Your task to perform on an android device: refresh tabs in the chrome app Image 0: 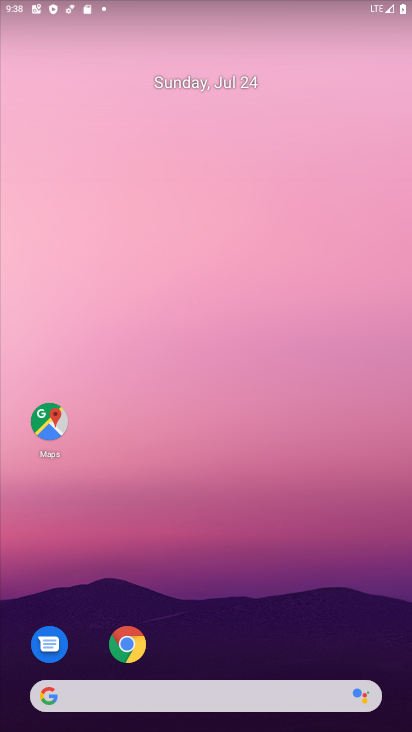
Step 0: click (127, 648)
Your task to perform on an android device: refresh tabs in the chrome app Image 1: 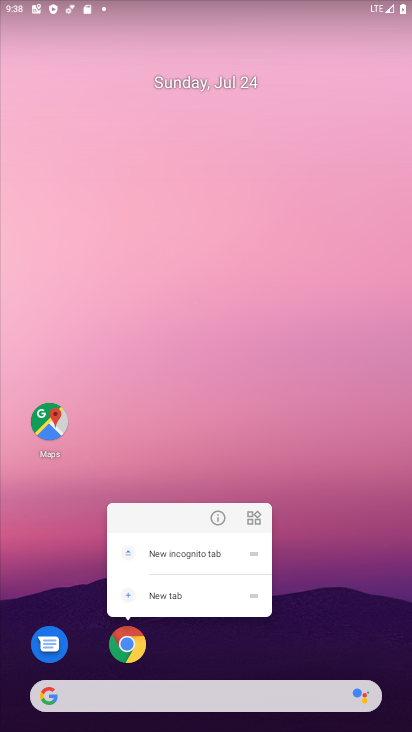
Step 1: click (129, 645)
Your task to perform on an android device: refresh tabs in the chrome app Image 2: 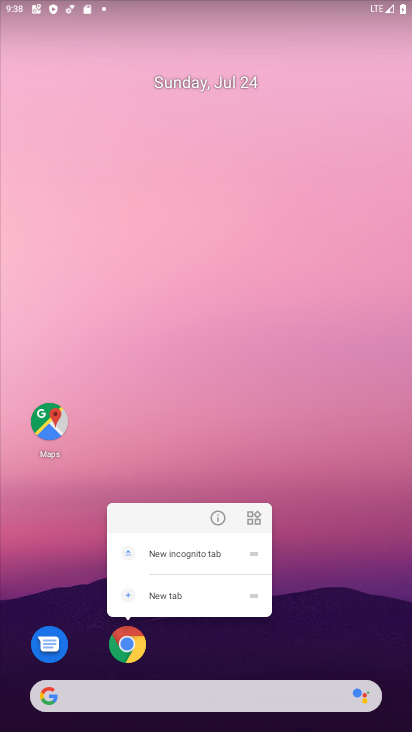
Step 2: click (129, 645)
Your task to perform on an android device: refresh tabs in the chrome app Image 3: 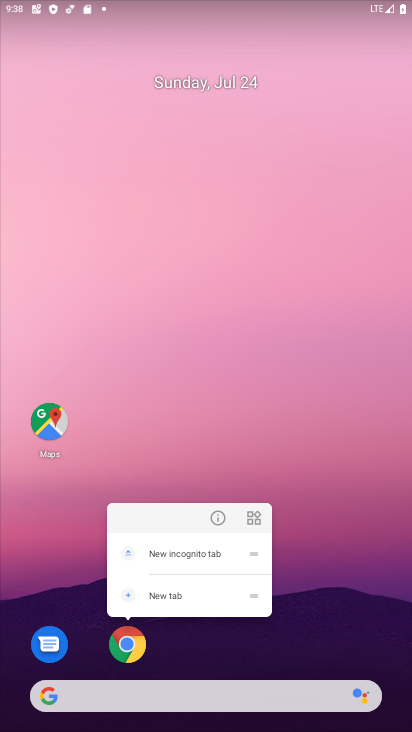
Step 3: click (127, 650)
Your task to perform on an android device: refresh tabs in the chrome app Image 4: 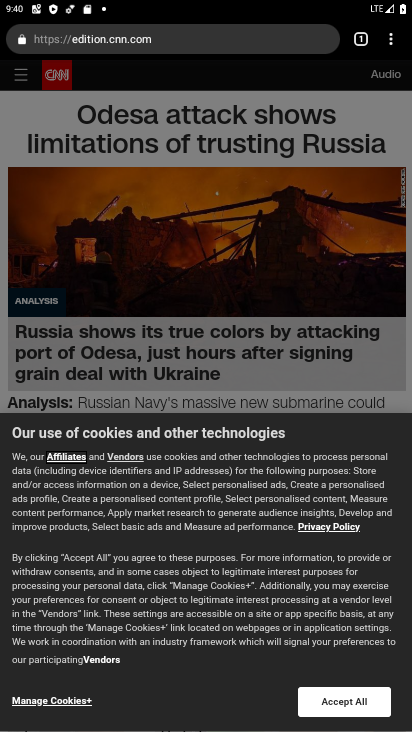
Step 4: click (385, 45)
Your task to perform on an android device: refresh tabs in the chrome app Image 5: 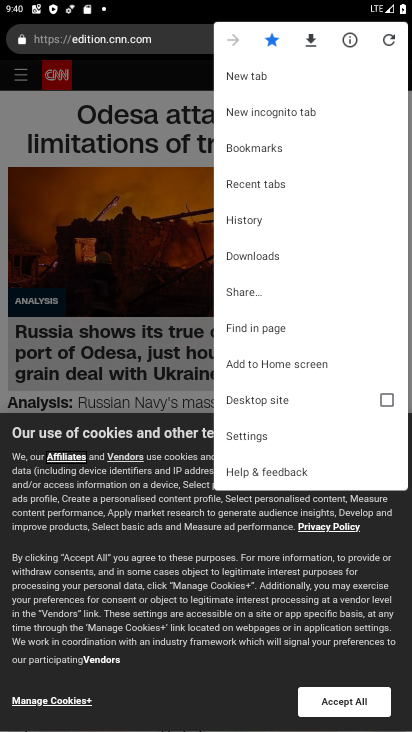
Step 5: click (373, 35)
Your task to perform on an android device: refresh tabs in the chrome app Image 6: 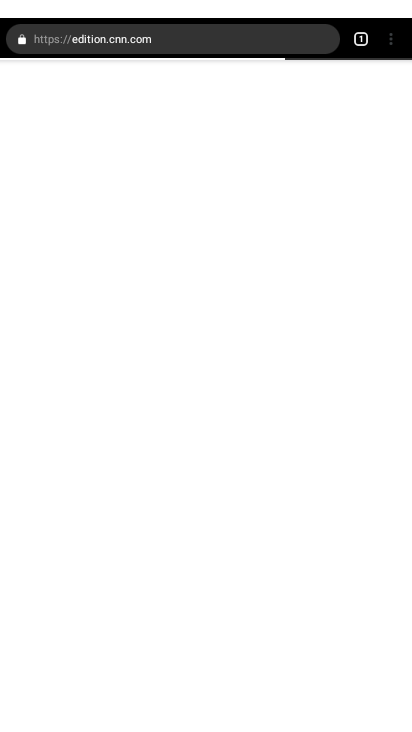
Step 6: task complete